Your task to perform on an android device: Clear all items from cart on target.com. Search for "acer nitro" on target.com, select the first entry, and add it to the cart. Image 0: 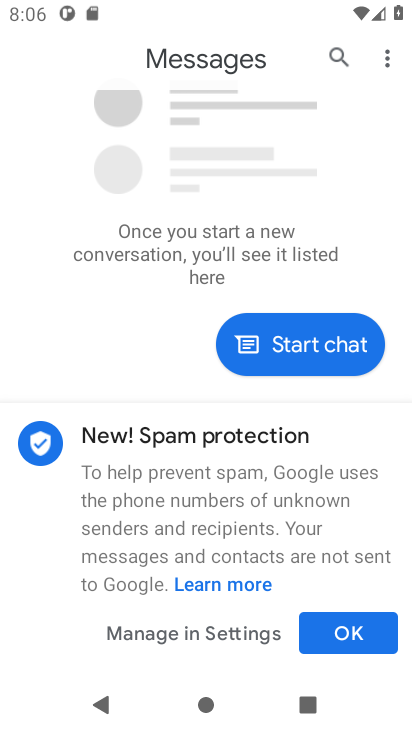
Step 0: press home button
Your task to perform on an android device: Clear all items from cart on target.com. Search for "acer nitro" on target.com, select the first entry, and add it to the cart. Image 1: 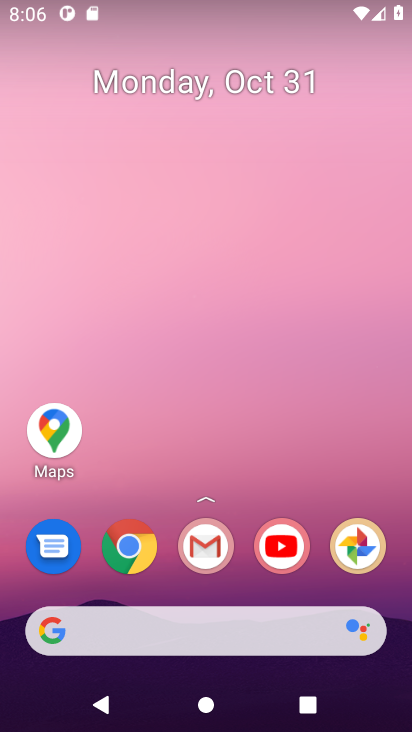
Step 1: click (130, 549)
Your task to perform on an android device: Clear all items from cart on target.com. Search for "acer nitro" on target.com, select the first entry, and add it to the cart. Image 2: 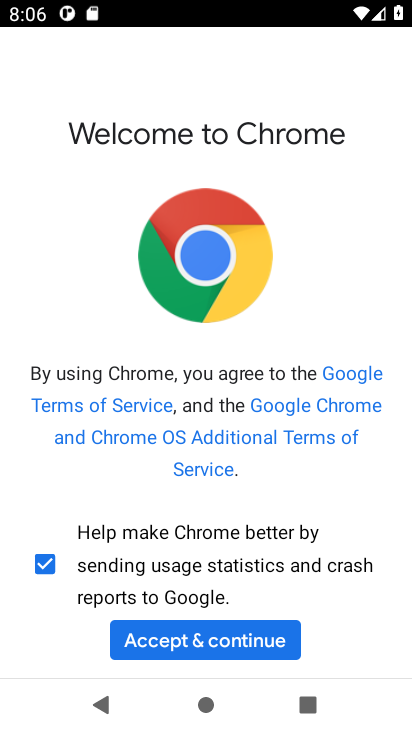
Step 2: click (214, 628)
Your task to perform on an android device: Clear all items from cart on target.com. Search for "acer nitro" on target.com, select the first entry, and add it to the cart. Image 3: 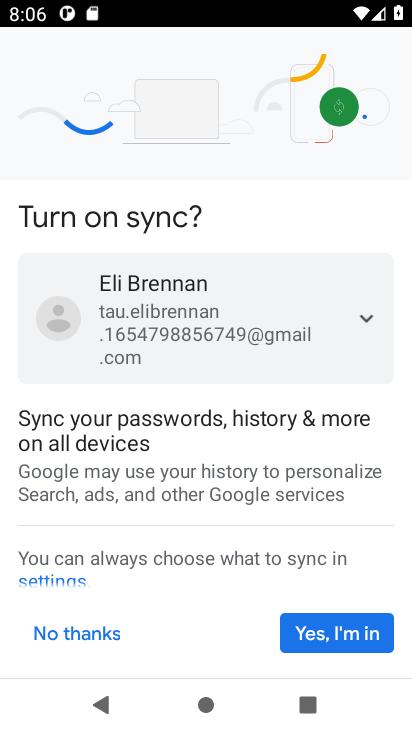
Step 3: click (332, 645)
Your task to perform on an android device: Clear all items from cart on target.com. Search for "acer nitro" on target.com, select the first entry, and add it to the cart. Image 4: 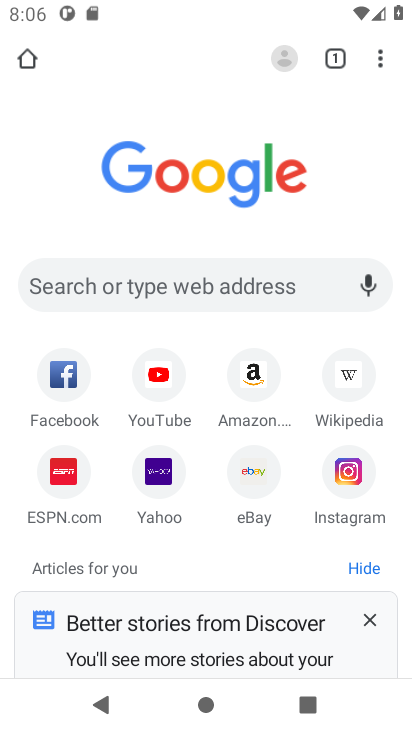
Step 4: click (207, 283)
Your task to perform on an android device: Clear all items from cart on target.com. Search for "acer nitro" on target.com, select the first entry, and add it to the cart. Image 5: 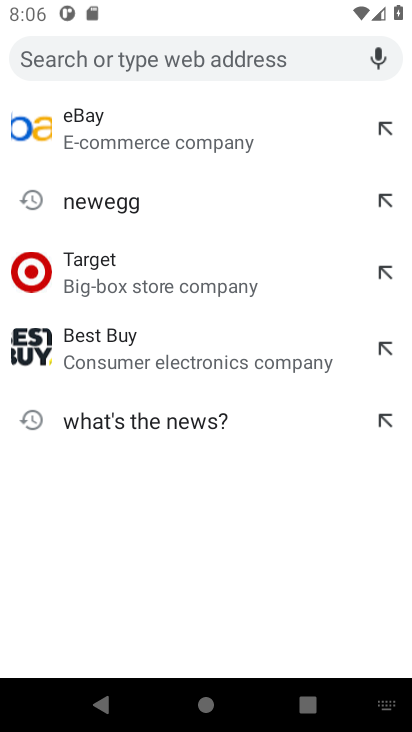
Step 5: click (68, 250)
Your task to perform on an android device: Clear all items from cart on target.com. Search for "acer nitro" on target.com, select the first entry, and add it to the cart. Image 6: 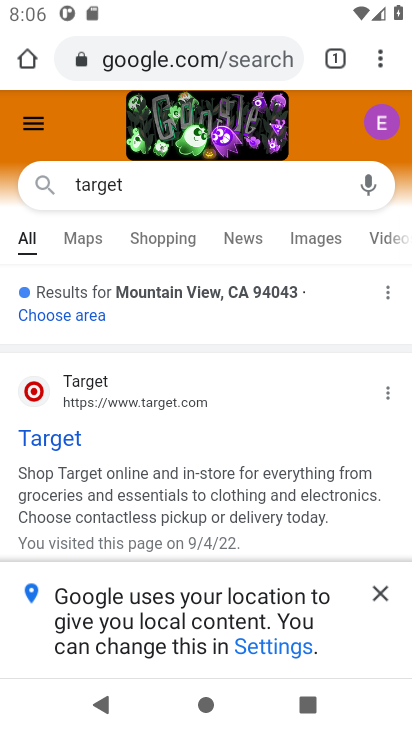
Step 6: click (66, 436)
Your task to perform on an android device: Clear all items from cart on target.com. Search for "acer nitro" on target.com, select the first entry, and add it to the cart. Image 7: 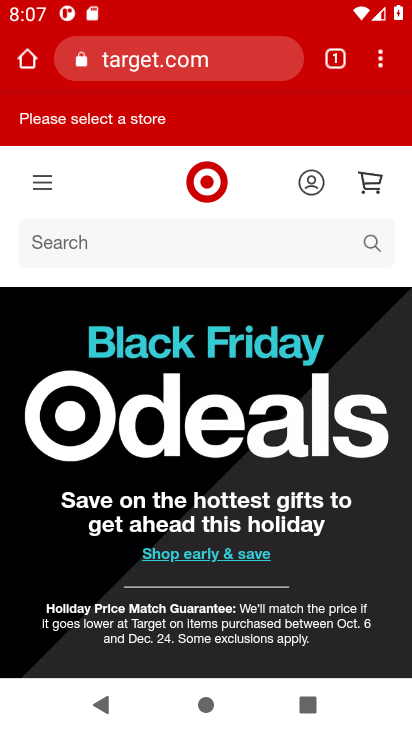
Step 7: click (365, 181)
Your task to perform on an android device: Clear all items from cart on target.com. Search for "acer nitro" on target.com, select the first entry, and add it to the cart. Image 8: 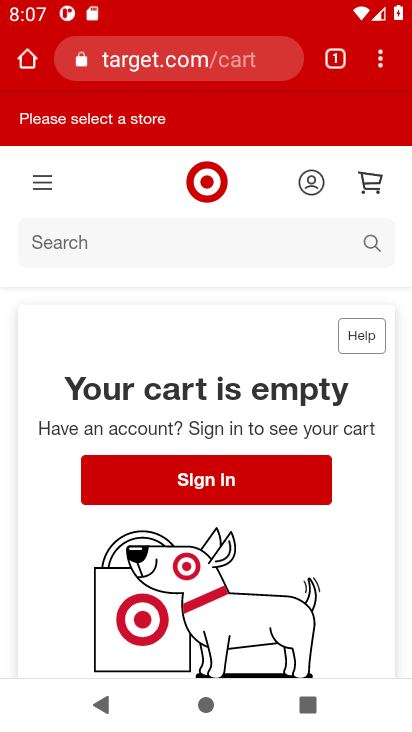
Step 8: click (79, 245)
Your task to perform on an android device: Clear all items from cart on target.com. Search for "acer nitro" on target.com, select the first entry, and add it to the cart. Image 9: 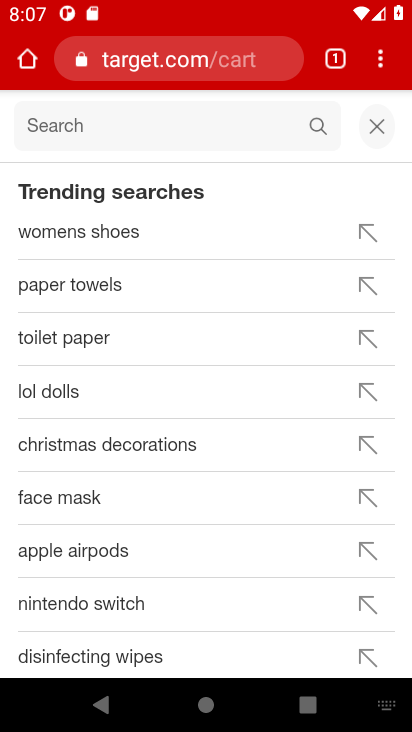
Step 9: type "acer nitro"
Your task to perform on an android device: Clear all items from cart on target.com. Search for "acer nitro" on target.com, select the first entry, and add it to the cart. Image 10: 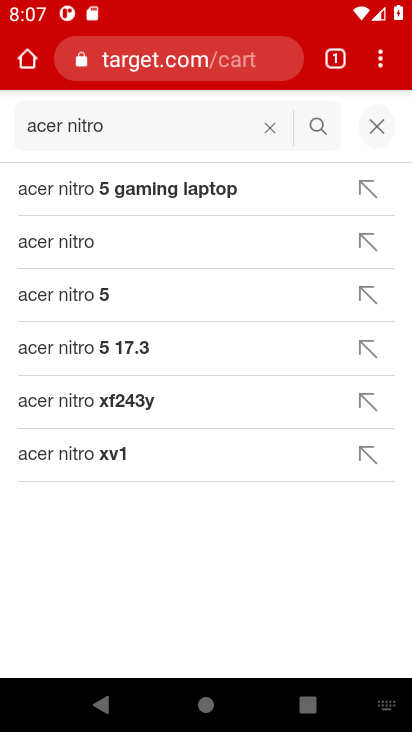
Step 10: click (85, 193)
Your task to perform on an android device: Clear all items from cart on target.com. Search for "acer nitro" on target.com, select the first entry, and add it to the cart. Image 11: 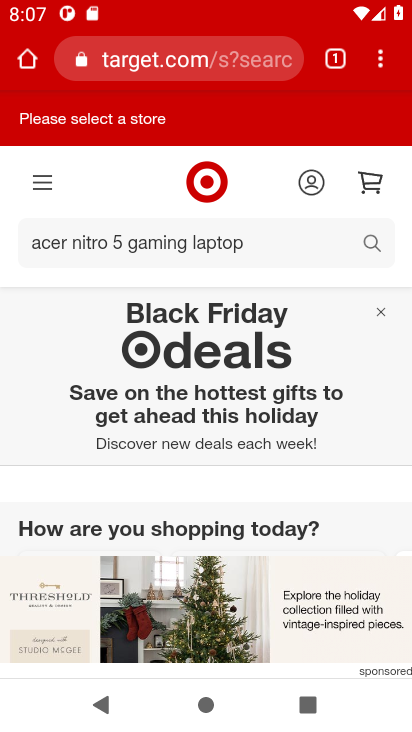
Step 11: drag from (249, 505) to (252, 144)
Your task to perform on an android device: Clear all items from cart on target.com. Search for "acer nitro" on target.com, select the first entry, and add it to the cart. Image 12: 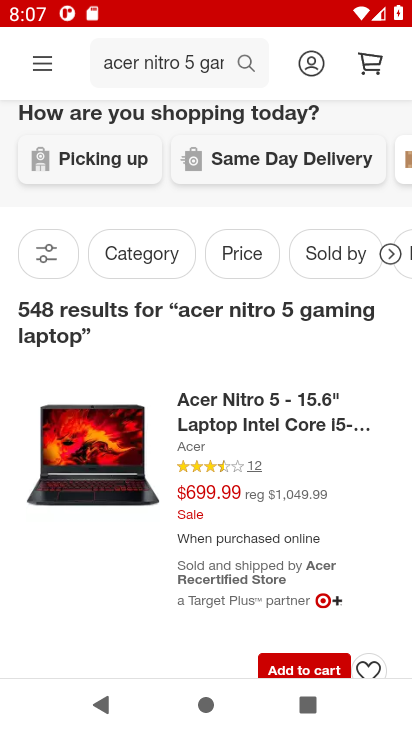
Step 12: click (232, 411)
Your task to perform on an android device: Clear all items from cart on target.com. Search for "acer nitro" on target.com, select the first entry, and add it to the cart. Image 13: 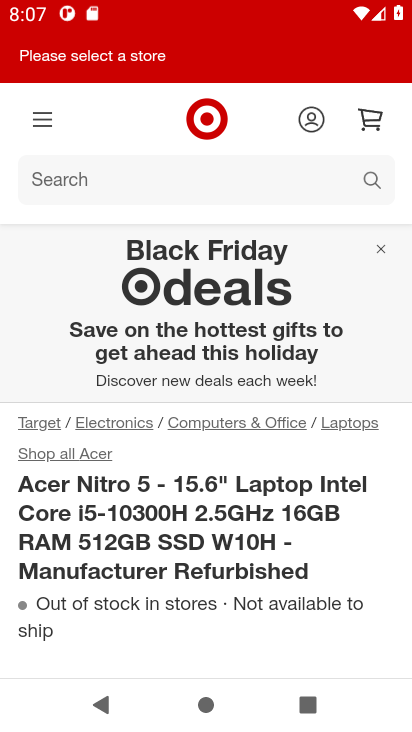
Step 13: drag from (221, 590) to (208, 146)
Your task to perform on an android device: Clear all items from cart on target.com. Search for "acer nitro" on target.com, select the first entry, and add it to the cart. Image 14: 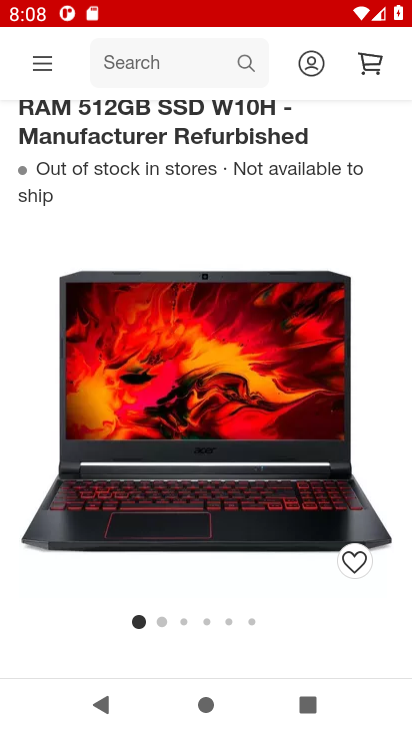
Step 14: drag from (273, 582) to (236, 232)
Your task to perform on an android device: Clear all items from cart on target.com. Search for "acer nitro" on target.com, select the first entry, and add it to the cart. Image 15: 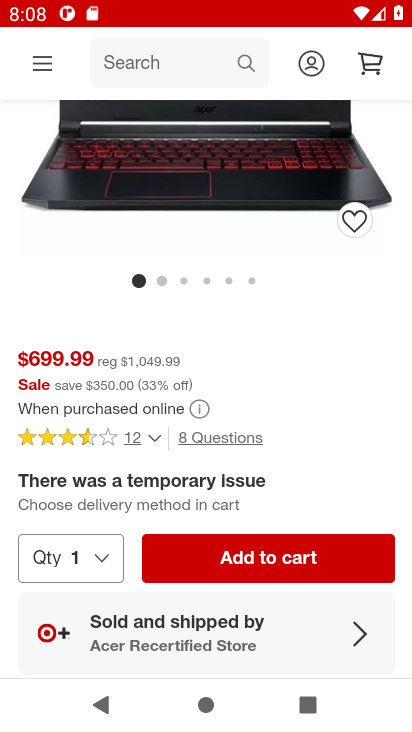
Step 15: click (264, 553)
Your task to perform on an android device: Clear all items from cart on target.com. Search for "acer nitro" on target.com, select the first entry, and add it to the cart. Image 16: 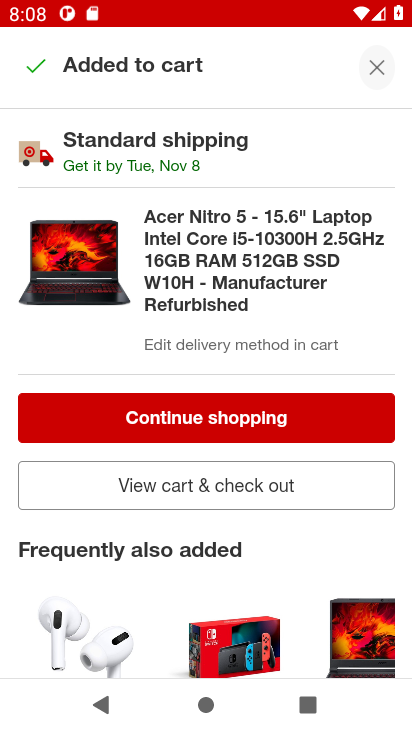
Step 16: task complete